Your task to perform on an android device: star an email in the gmail app Image 0: 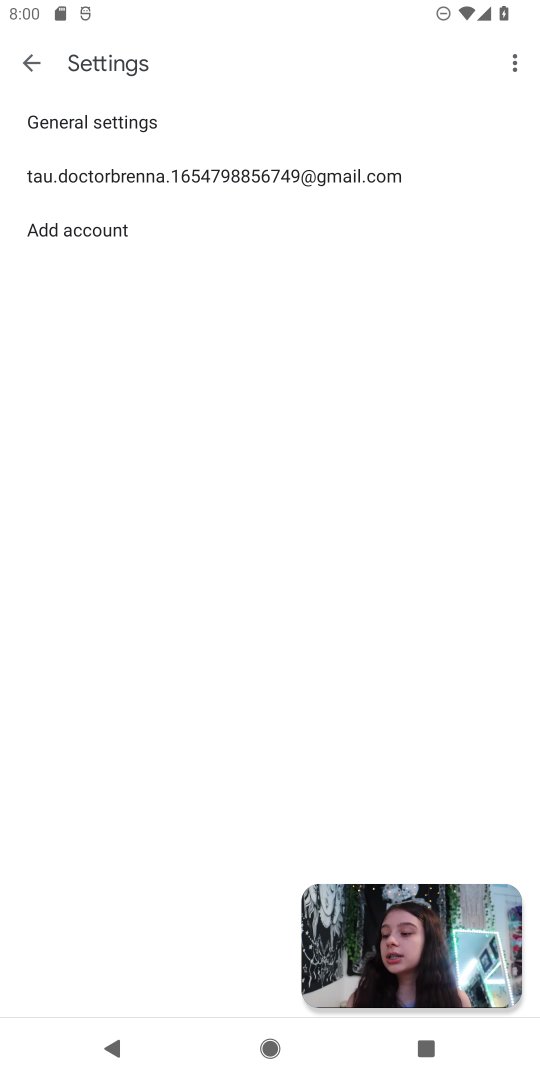
Step 0: click (34, 64)
Your task to perform on an android device: star an email in the gmail app Image 1: 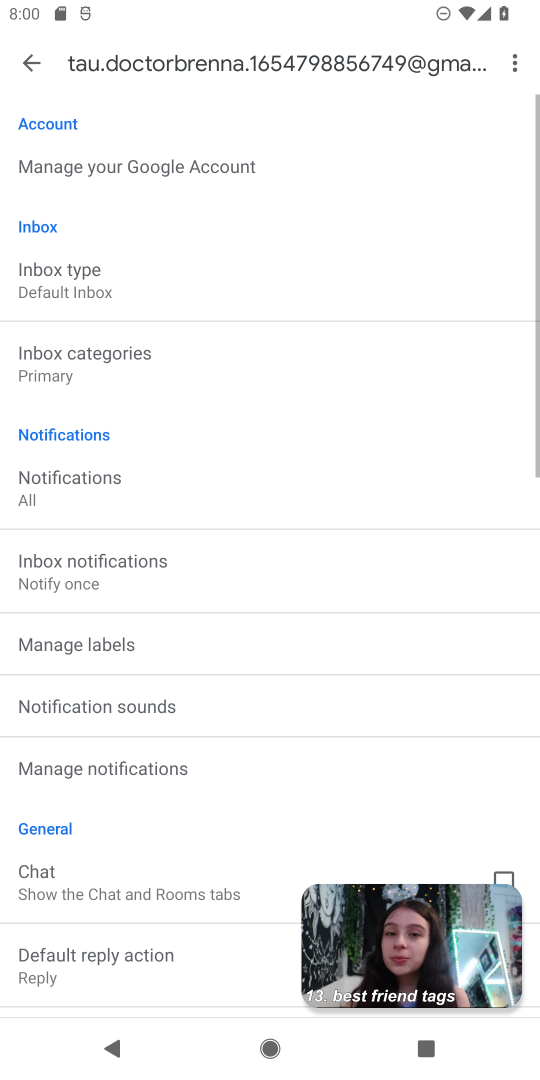
Step 1: click (429, 951)
Your task to perform on an android device: star an email in the gmail app Image 2: 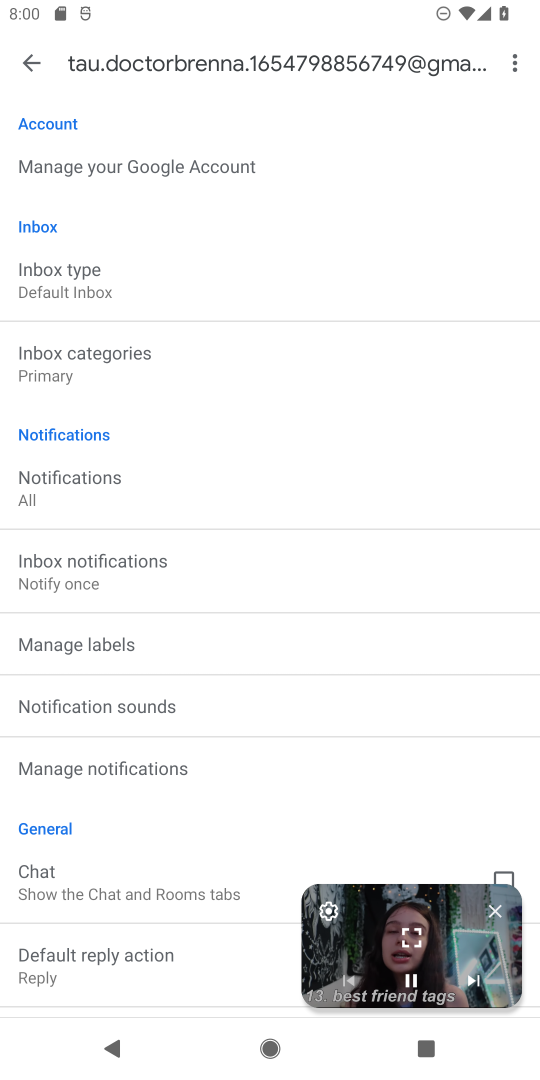
Step 2: click (496, 914)
Your task to perform on an android device: star an email in the gmail app Image 3: 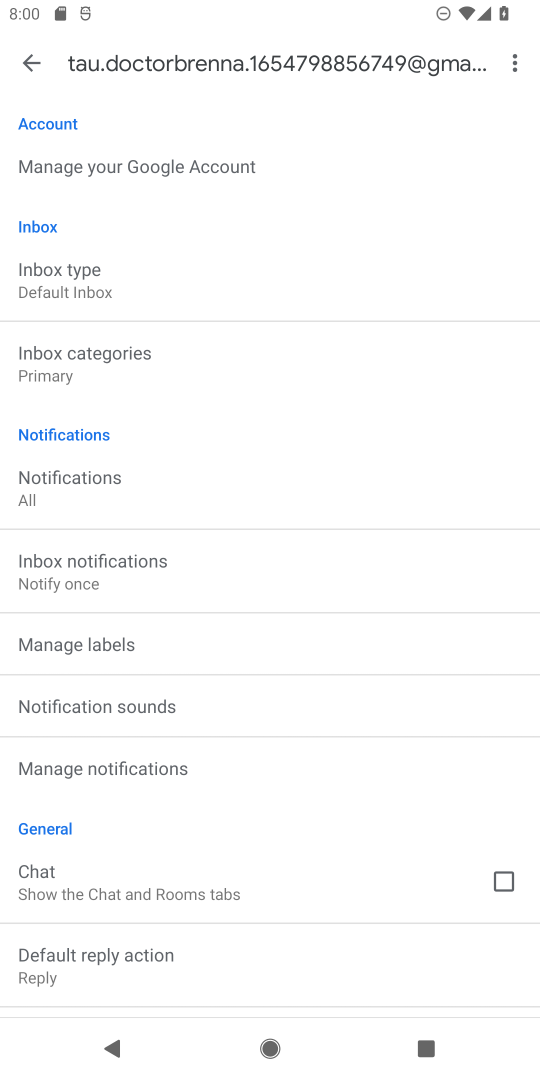
Step 3: click (34, 75)
Your task to perform on an android device: star an email in the gmail app Image 4: 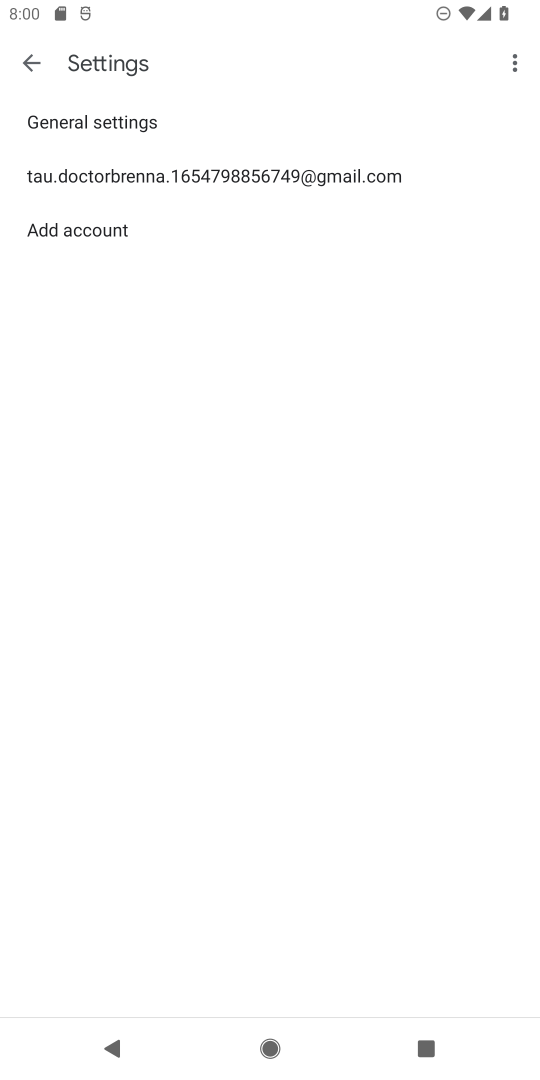
Step 4: click (36, 63)
Your task to perform on an android device: star an email in the gmail app Image 5: 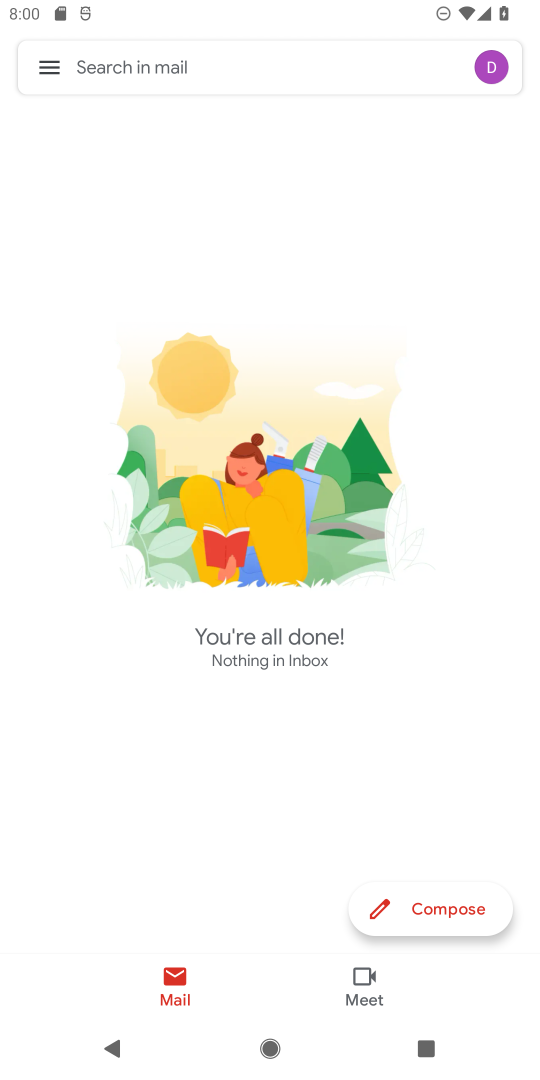
Step 5: task complete